Your task to perform on an android device: Find the nearest electronics store that's open tomorrow Image 0: 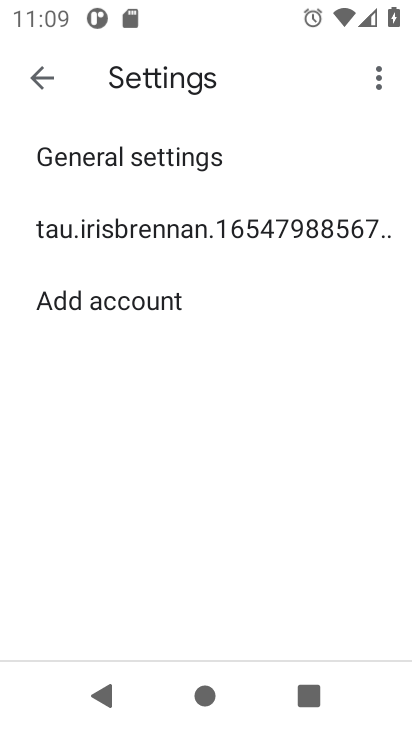
Step 0: press home button
Your task to perform on an android device: Find the nearest electronics store that's open tomorrow Image 1: 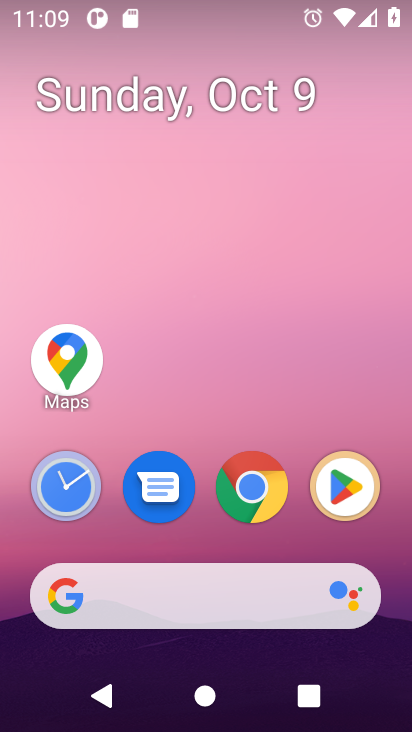
Step 1: drag from (216, 563) to (203, 40)
Your task to perform on an android device: Find the nearest electronics store that's open tomorrow Image 2: 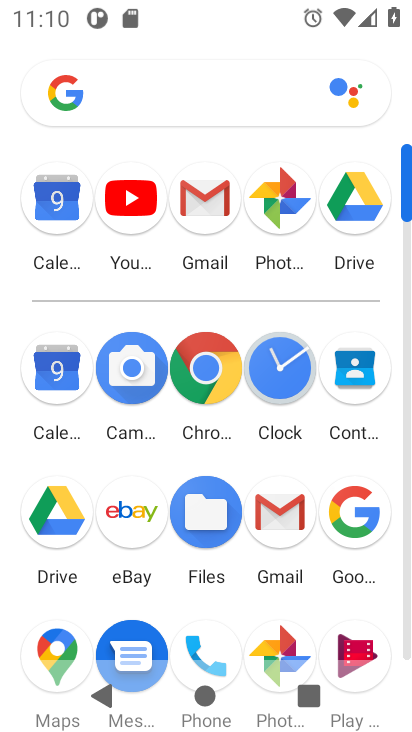
Step 2: click (203, 369)
Your task to perform on an android device: Find the nearest electronics store that's open tomorrow Image 3: 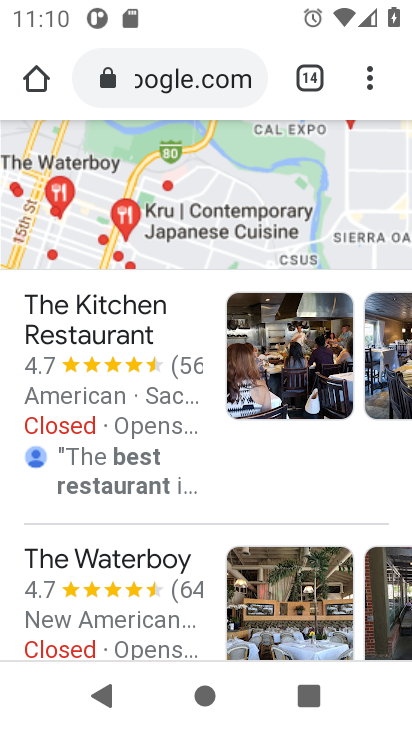
Step 3: drag from (214, 176) to (232, 551)
Your task to perform on an android device: Find the nearest electronics store that's open tomorrow Image 4: 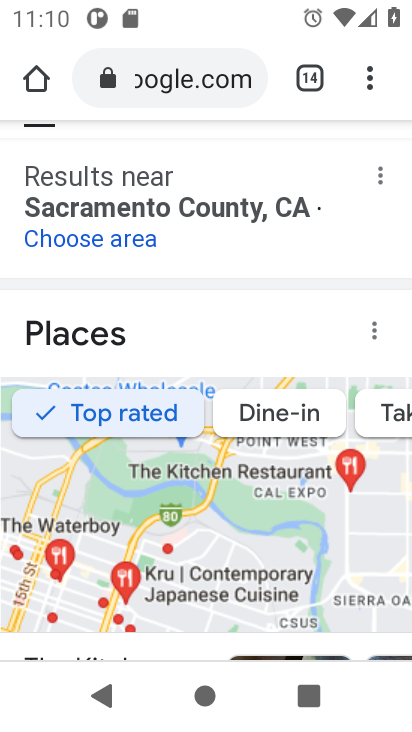
Step 4: drag from (239, 128) to (238, 529)
Your task to perform on an android device: Find the nearest electronics store that's open tomorrow Image 5: 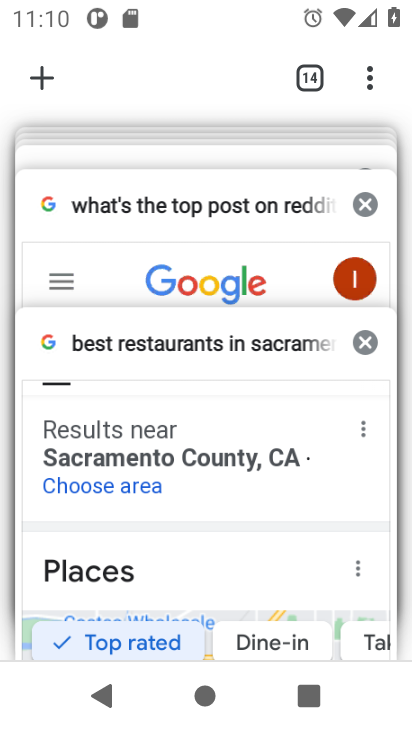
Step 5: click (43, 78)
Your task to perform on an android device: Find the nearest electronics store that's open tomorrow Image 6: 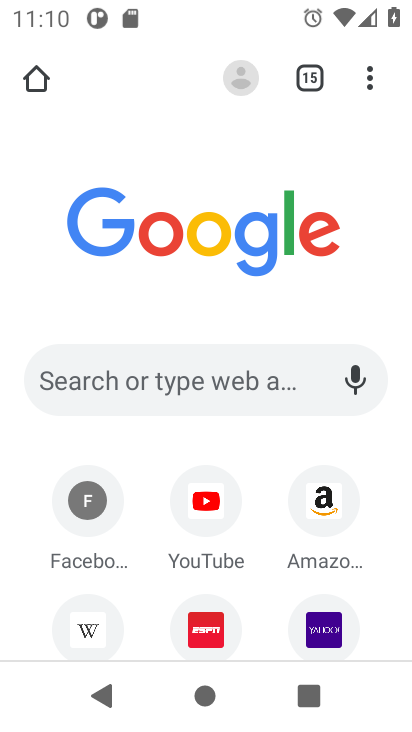
Step 6: click (229, 379)
Your task to perform on an android device: Find the nearest electronics store that's open tomorrow Image 7: 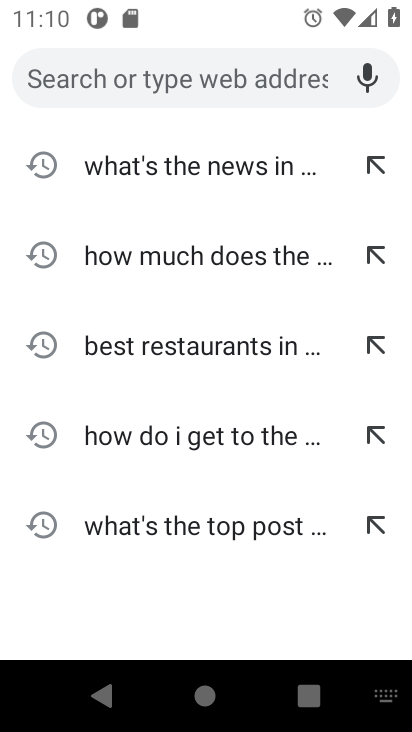
Step 7: type "Find the nearest electronics store that's open tomorrow"
Your task to perform on an android device: Find the nearest electronics store that's open tomorrow Image 8: 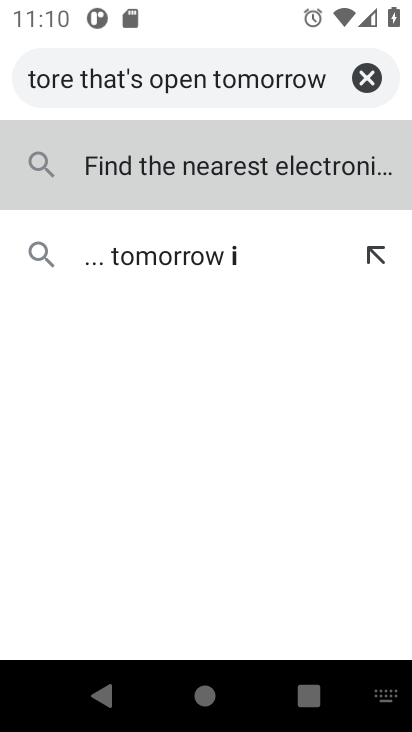
Step 8: click (267, 169)
Your task to perform on an android device: Find the nearest electronics store that's open tomorrow Image 9: 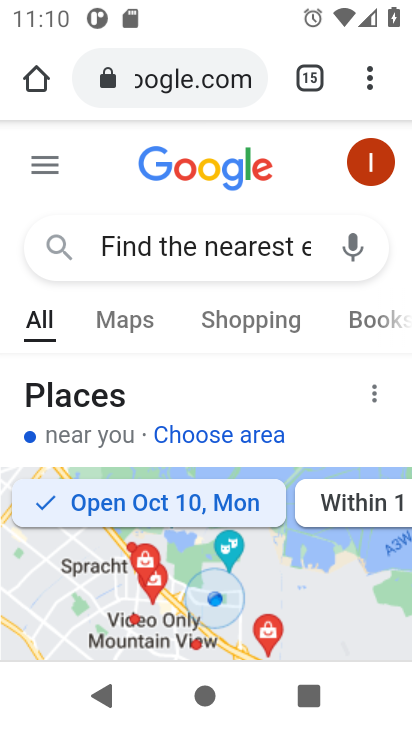
Step 9: task complete